Your task to perform on an android device: find snoozed emails in the gmail app Image 0: 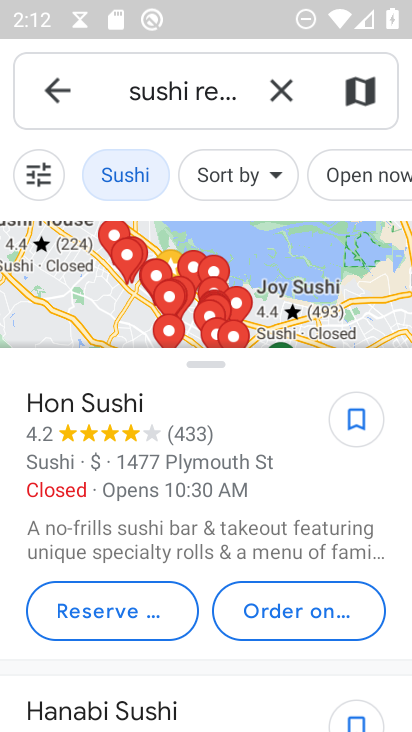
Step 0: press home button
Your task to perform on an android device: find snoozed emails in the gmail app Image 1: 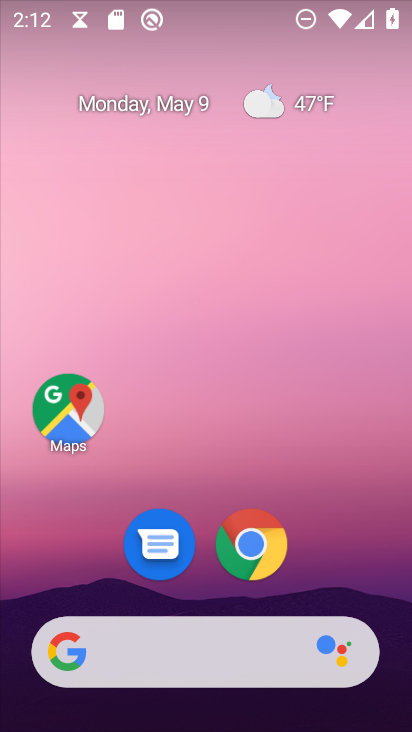
Step 1: drag from (360, 485) to (357, 104)
Your task to perform on an android device: find snoozed emails in the gmail app Image 2: 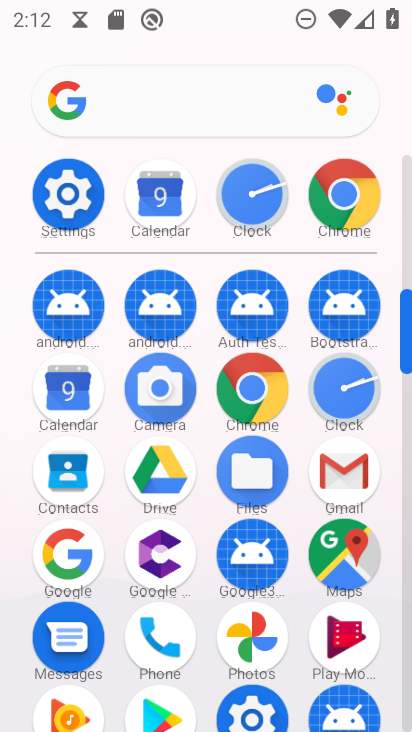
Step 2: click (359, 470)
Your task to perform on an android device: find snoozed emails in the gmail app Image 3: 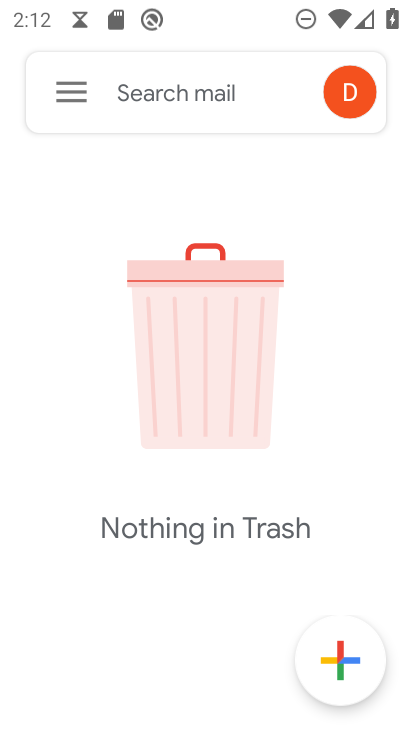
Step 3: click (83, 91)
Your task to perform on an android device: find snoozed emails in the gmail app Image 4: 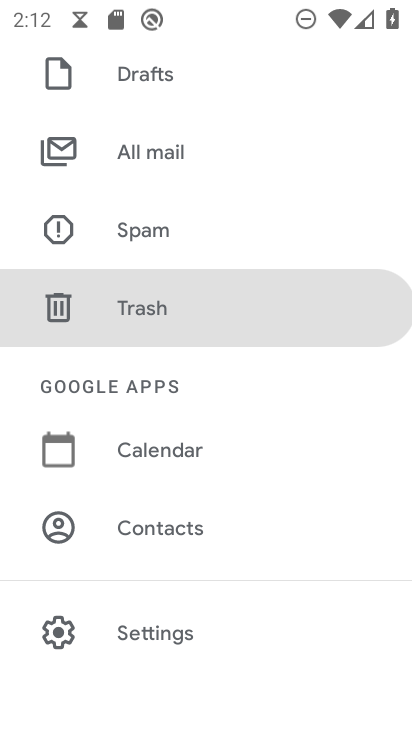
Step 4: drag from (123, 141) to (191, 559)
Your task to perform on an android device: find snoozed emails in the gmail app Image 5: 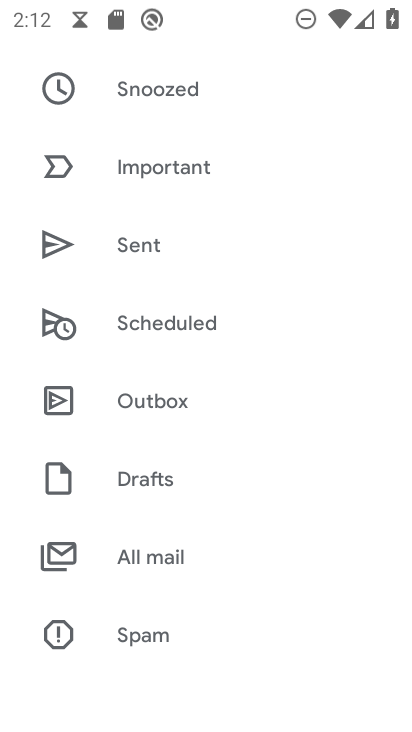
Step 5: drag from (216, 407) to (239, 544)
Your task to perform on an android device: find snoozed emails in the gmail app Image 6: 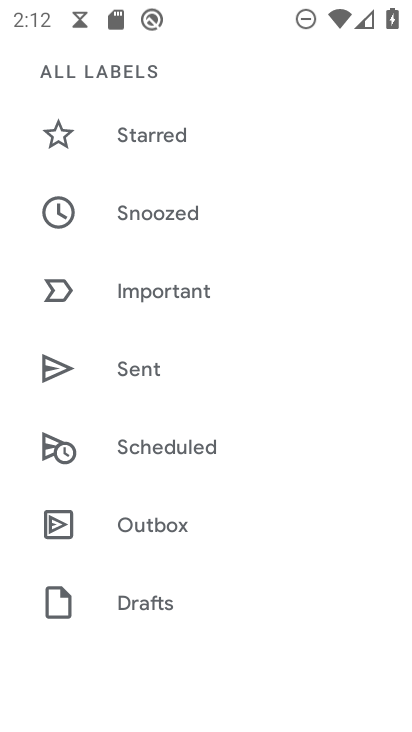
Step 6: drag from (181, 236) to (215, 472)
Your task to perform on an android device: find snoozed emails in the gmail app Image 7: 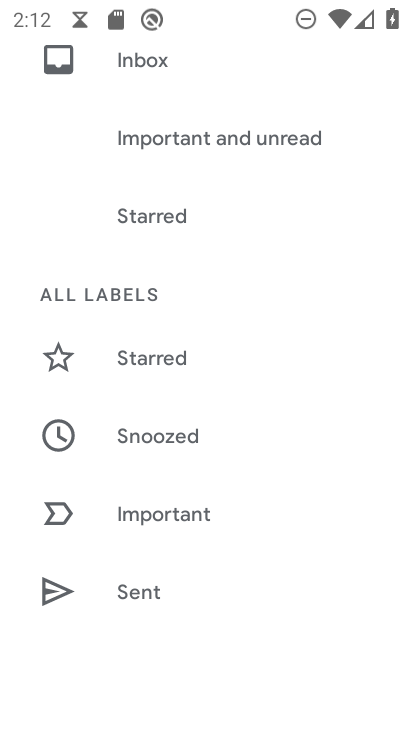
Step 7: click (181, 442)
Your task to perform on an android device: find snoozed emails in the gmail app Image 8: 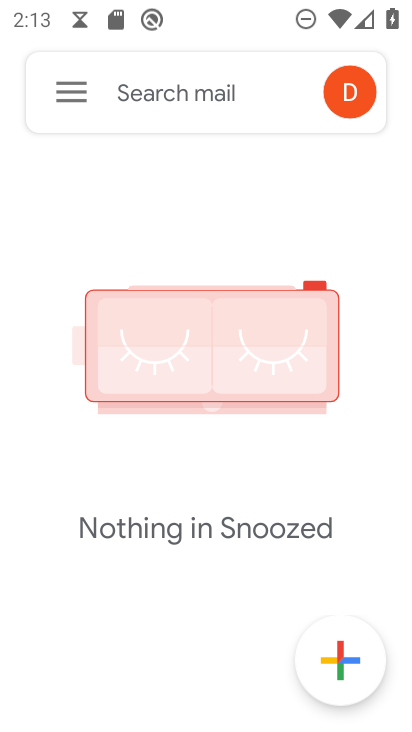
Step 8: task complete